Your task to perform on an android device: check the backup settings in the google photos Image 0: 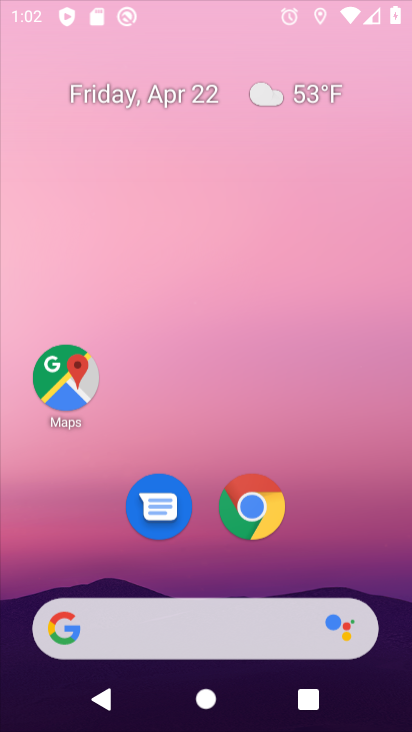
Step 0: click (260, 141)
Your task to perform on an android device: check the backup settings in the google photos Image 1: 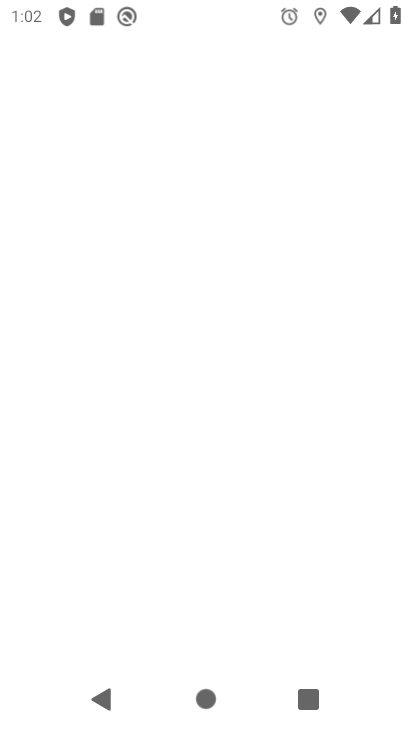
Step 1: press home button
Your task to perform on an android device: check the backup settings in the google photos Image 2: 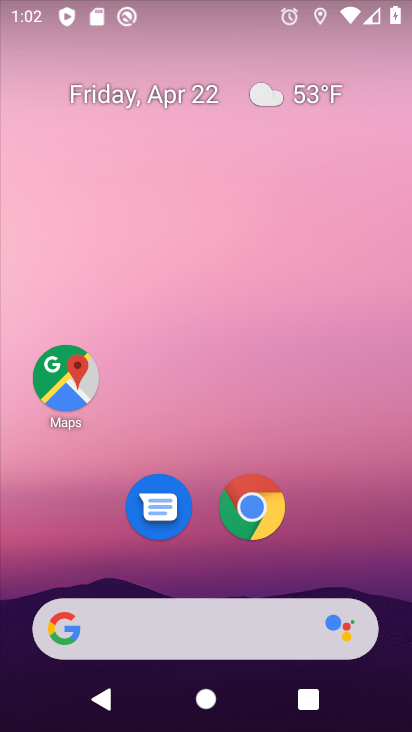
Step 2: drag from (342, 531) to (297, 68)
Your task to perform on an android device: check the backup settings in the google photos Image 3: 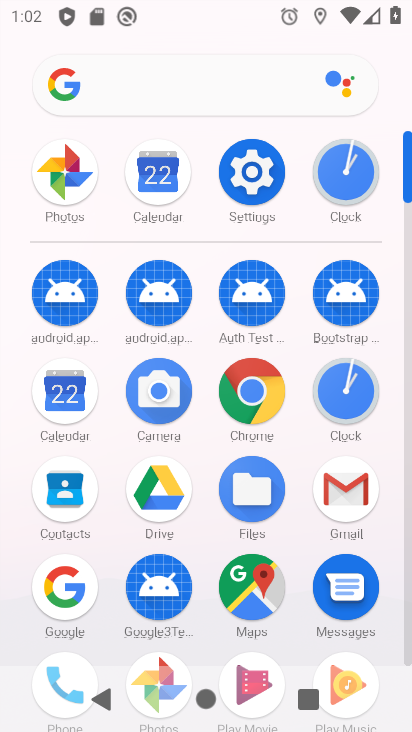
Step 3: click (55, 175)
Your task to perform on an android device: check the backup settings in the google photos Image 4: 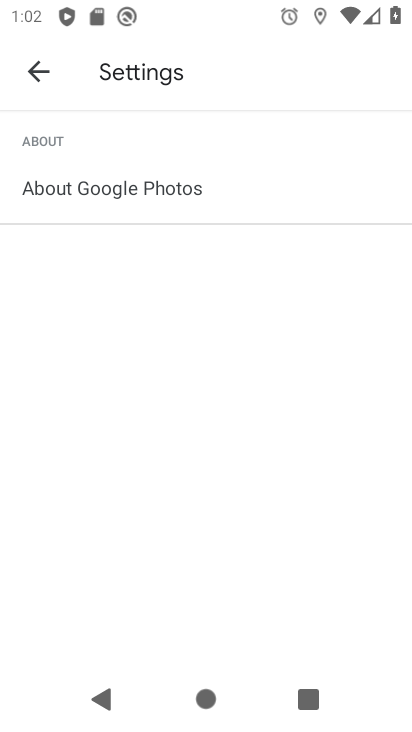
Step 4: click (37, 83)
Your task to perform on an android device: check the backup settings in the google photos Image 5: 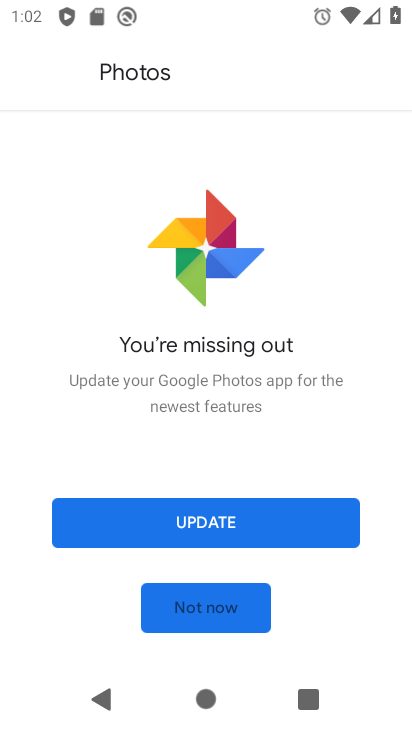
Step 5: click (205, 606)
Your task to perform on an android device: check the backup settings in the google photos Image 6: 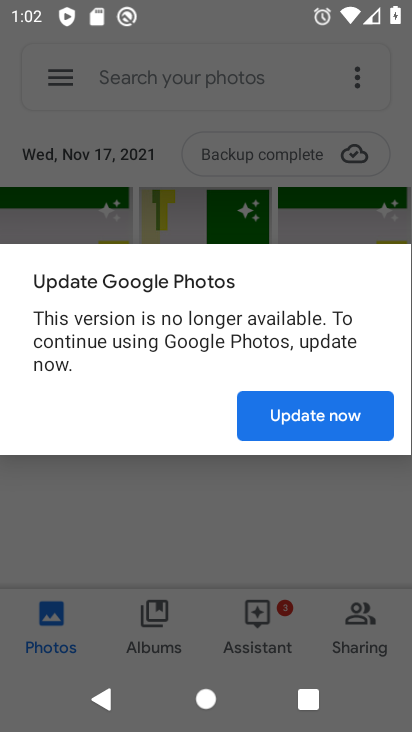
Step 6: click (321, 414)
Your task to perform on an android device: check the backup settings in the google photos Image 7: 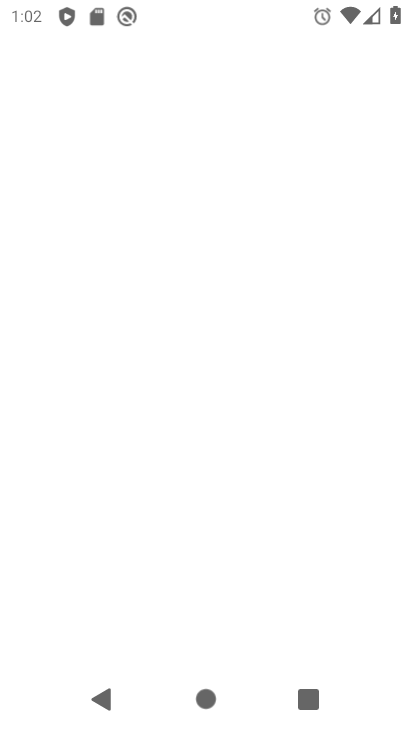
Step 7: press back button
Your task to perform on an android device: check the backup settings in the google photos Image 8: 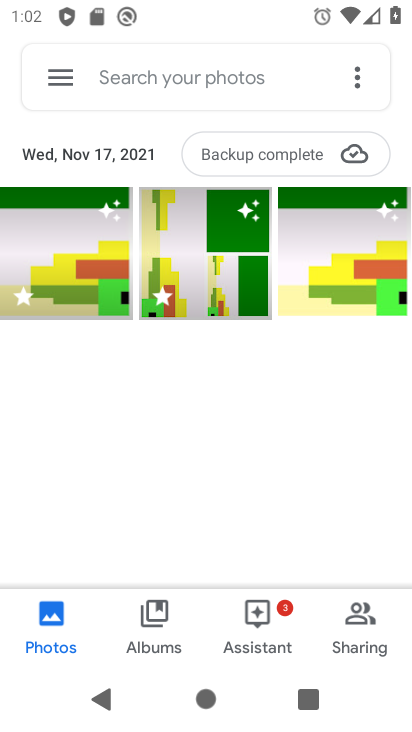
Step 8: click (60, 80)
Your task to perform on an android device: check the backup settings in the google photos Image 9: 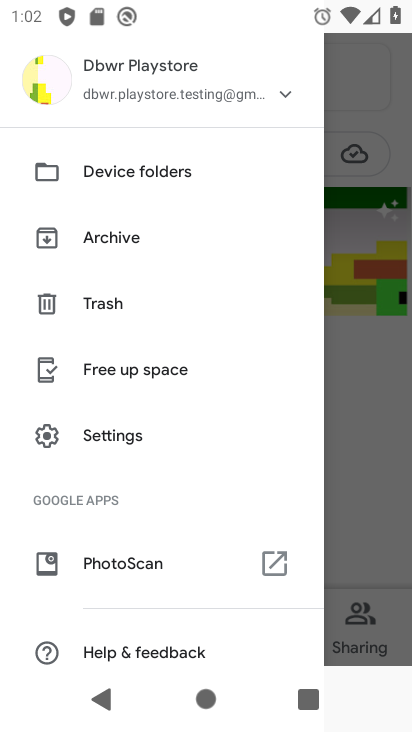
Step 9: click (124, 433)
Your task to perform on an android device: check the backup settings in the google photos Image 10: 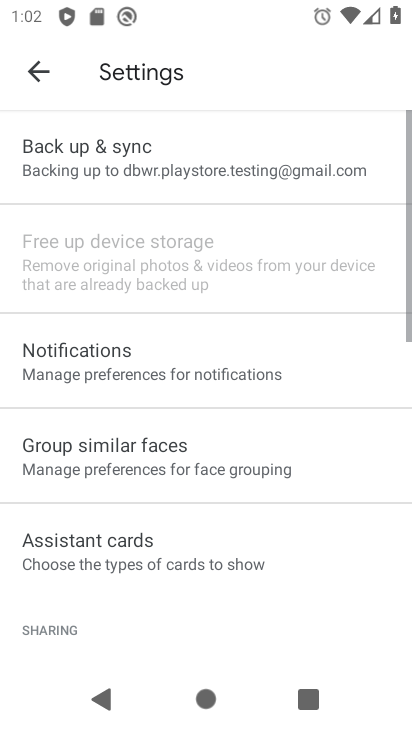
Step 10: click (130, 167)
Your task to perform on an android device: check the backup settings in the google photos Image 11: 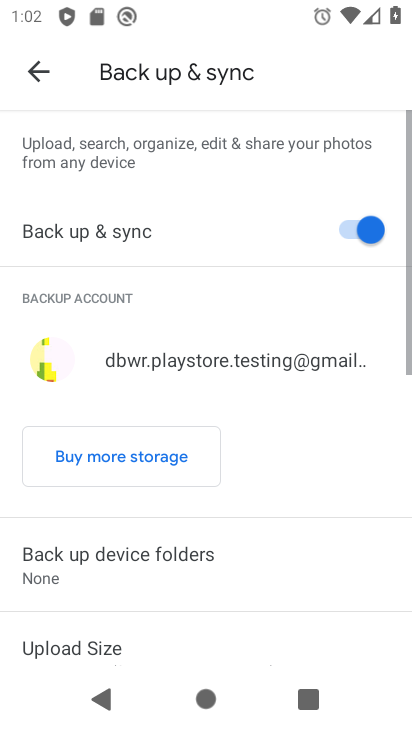
Step 11: task complete